Your task to perform on an android device: open a new tab in the chrome app Image 0: 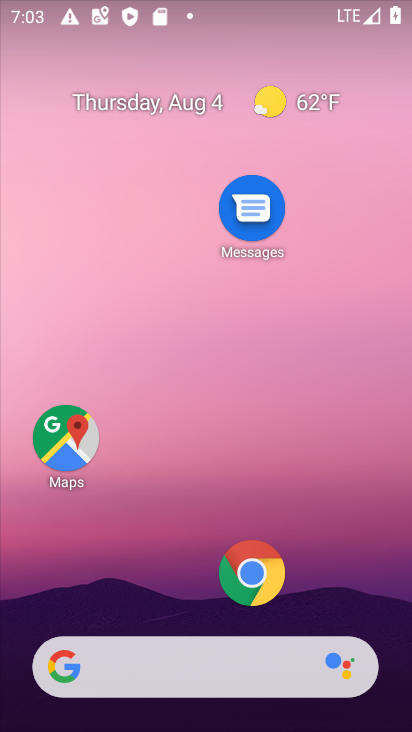
Step 0: press home button
Your task to perform on an android device: open a new tab in the chrome app Image 1: 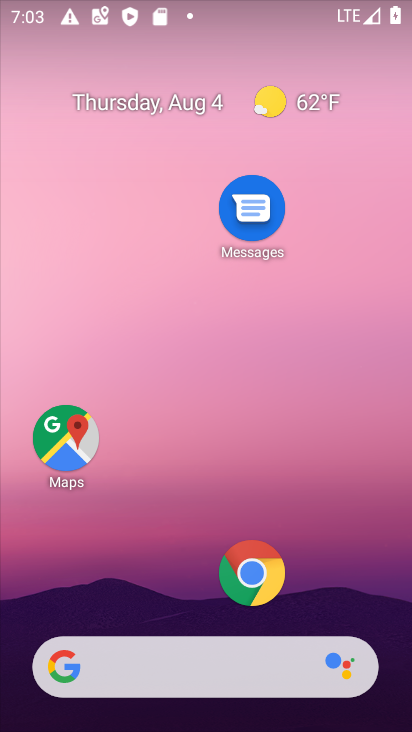
Step 1: click (256, 569)
Your task to perform on an android device: open a new tab in the chrome app Image 2: 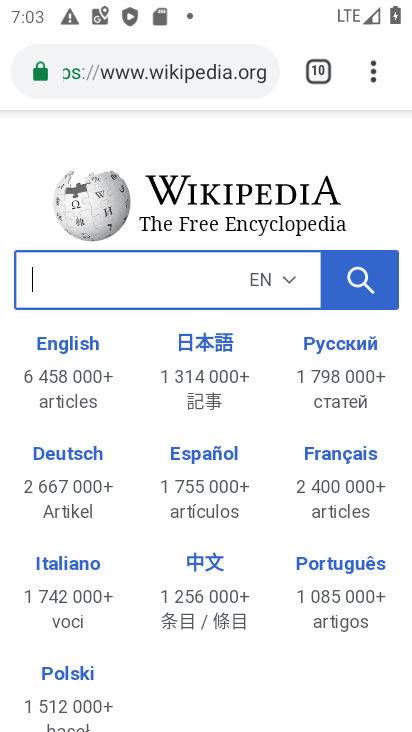
Step 2: click (323, 69)
Your task to perform on an android device: open a new tab in the chrome app Image 3: 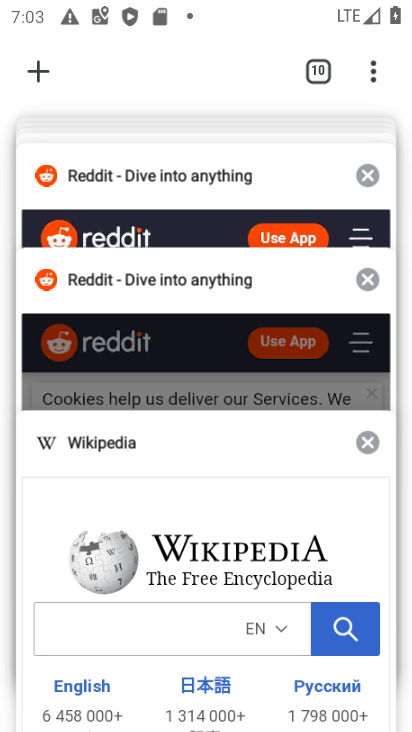
Step 3: click (37, 70)
Your task to perform on an android device: open a new tab in the chrome app Image 4: 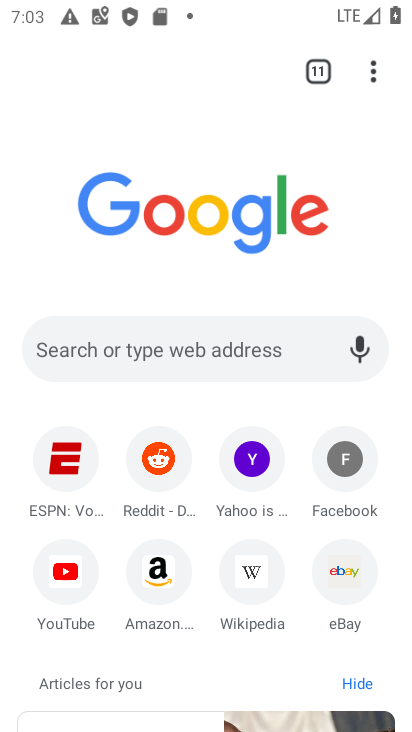
Step 4: task complete